Your task to perform on an android device: Open calendar and show me the first week of next month Image 0: 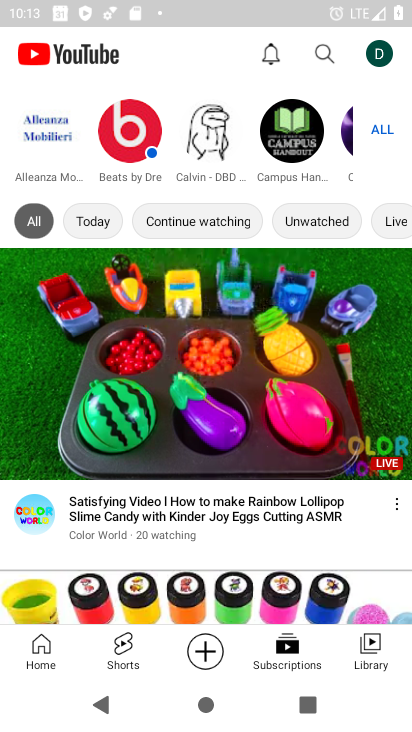
Step 0: press home button
Your task to perform on an android device: Open calendar and show me the first week of next month Image 1: 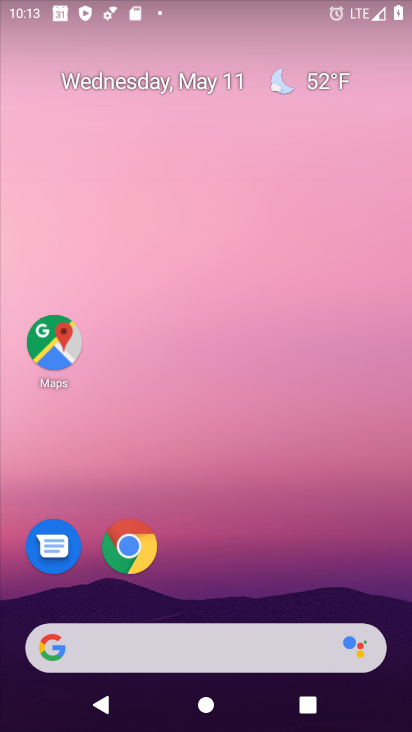
Step 1: drag from (157, 638) to (129, 63)
Your task to perform on an android device: Open calendar and show me the first week of next month Image 2: 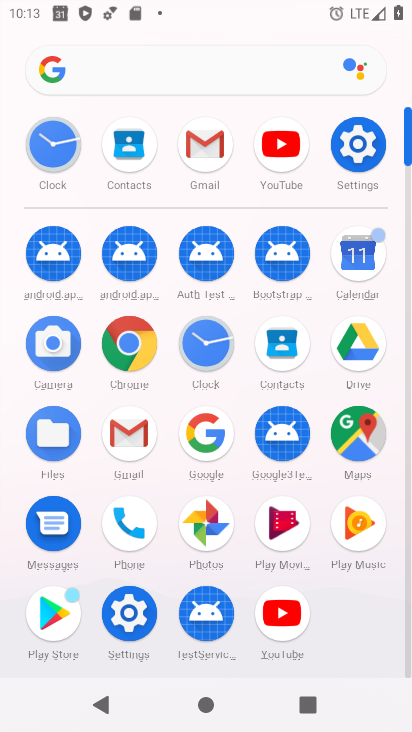
Step 2: click (357, 264)
Your task to perform on an android device: Open calendar and show me the first week of next month Image 3: 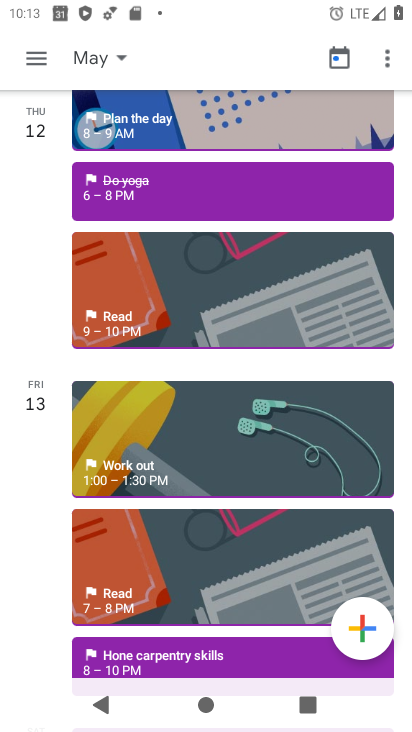
Step 3: click (27, 62)
Your task to perform on an android device: Open calendar and show me the first week of next month Image 4: 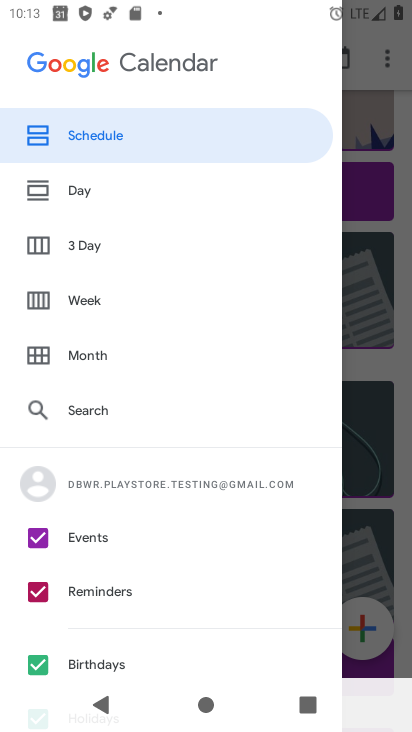
Step 4: click (68, 357)
Your task to perform on an android device: Open calendar and show me the first week of next month Image 5: 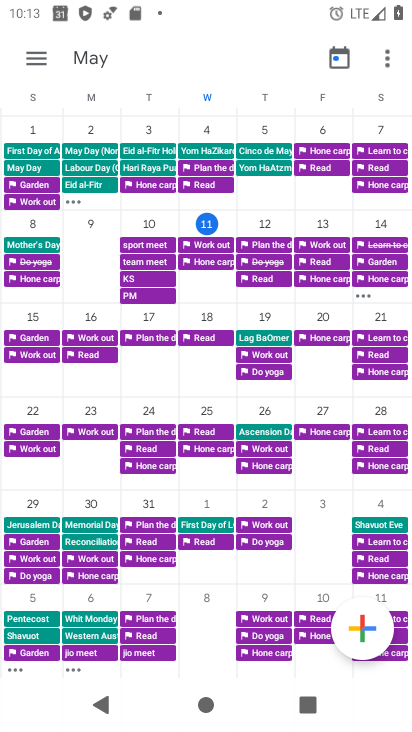
Step 5: task complete